Your task to perform on an android device: Go to Android settings Image 0: 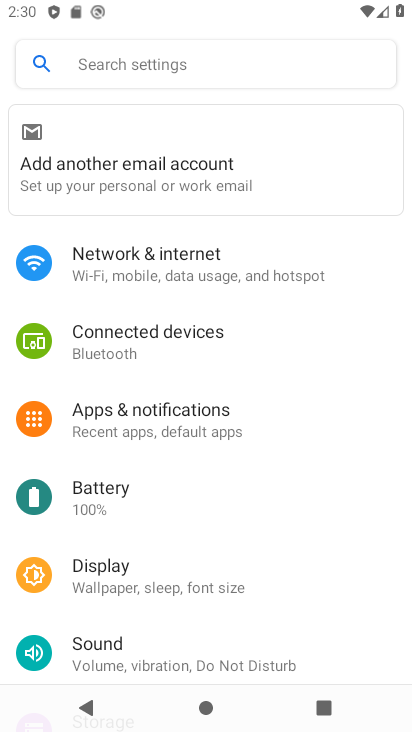
Step 0: press back button
Your task to perform on an android device: Go to Android settings Image 1: 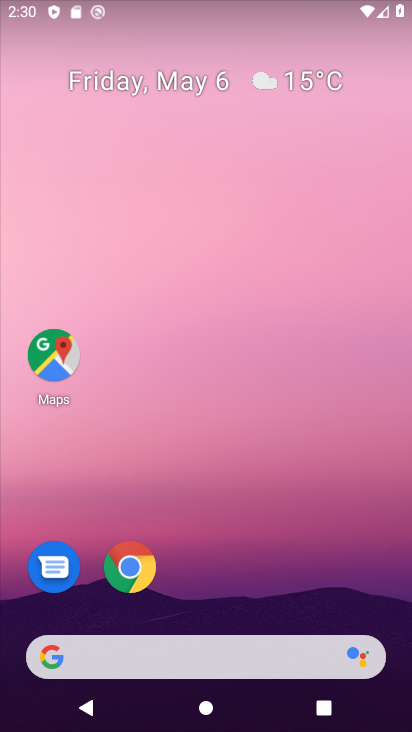
Step 1: drag from (172, 632) to (259, 170)
Your task to perform on an android device: Go to Android settings Image 2: 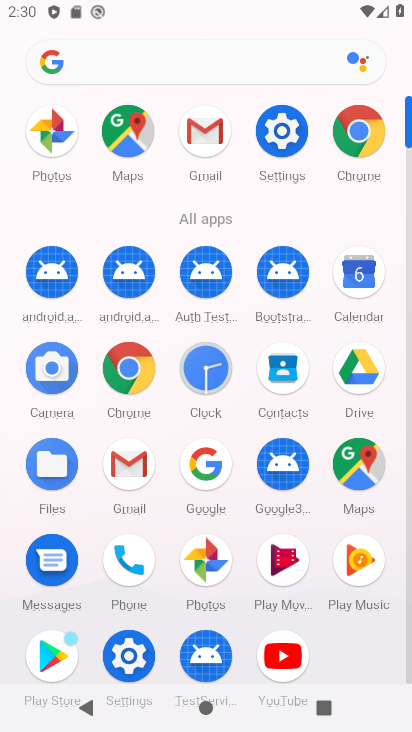
Step 2: drag from (198, 683) to (229, 550)
Your task to perform on an android device: Go to Android settings Image 3: 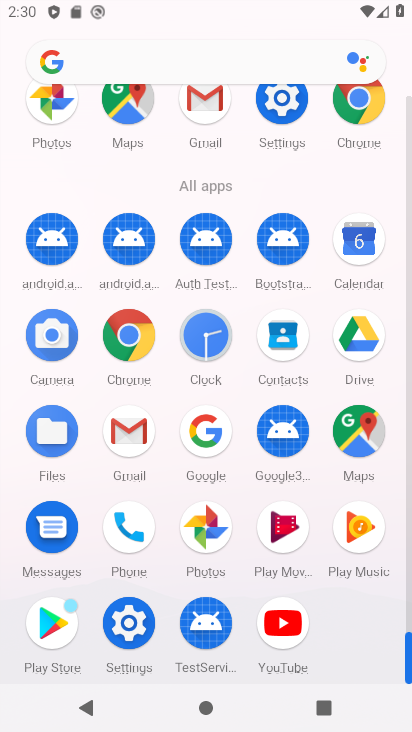
Step 3: click (138, 636)
Your task to perform on an android device: Go to Android settings Image 4: 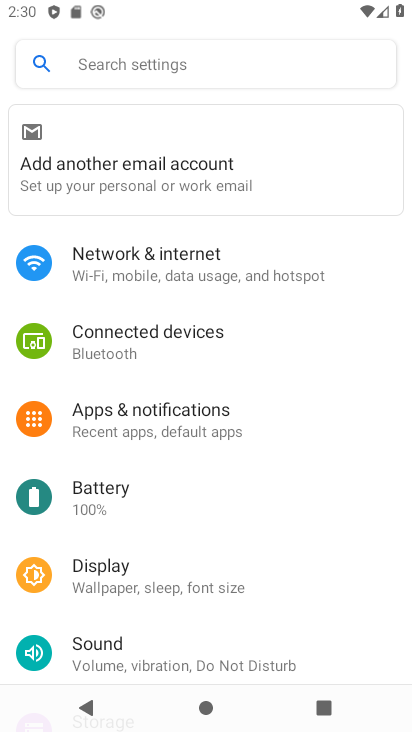
Step 4: task complete